Your task to perform on an android device: star an email in the gmail app Image 0: 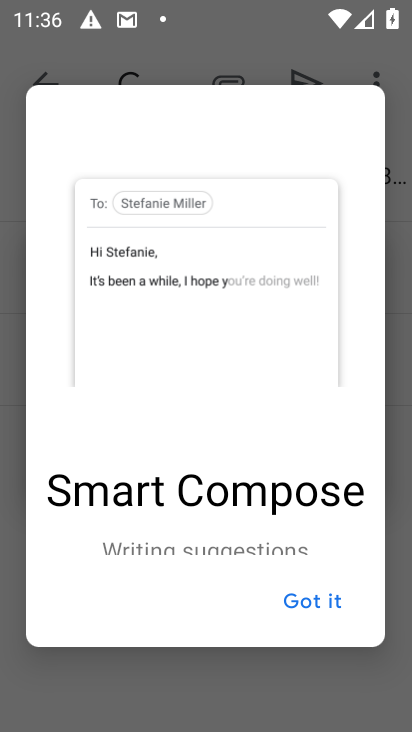
Step 0: press home button
Your task to perform on an android device: star an email in the gmail app Image 1: 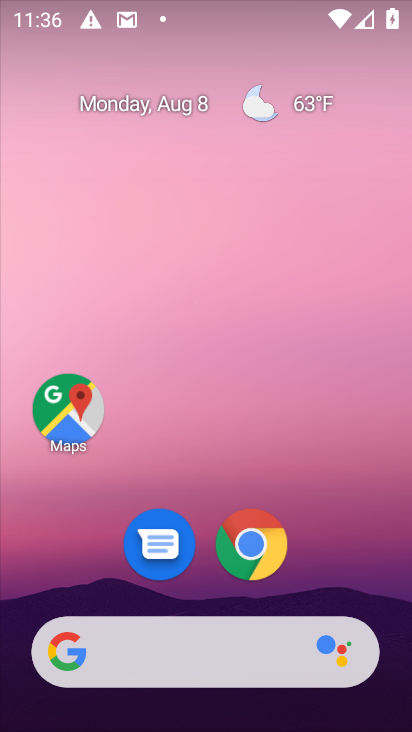
Step 1: drag from (181, 646) to (221, 130)
Your task to perform on an android device: star an email in the gmail app Image 2: 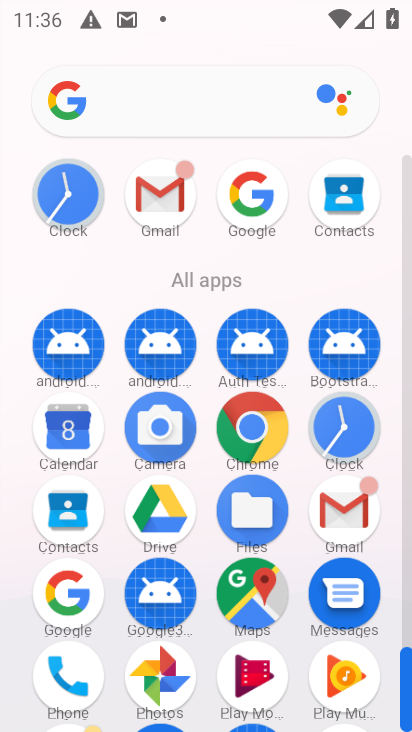
Step 2: click (157, 193)
Your task to perform on an android device: star an email in the gmail app Image 3: 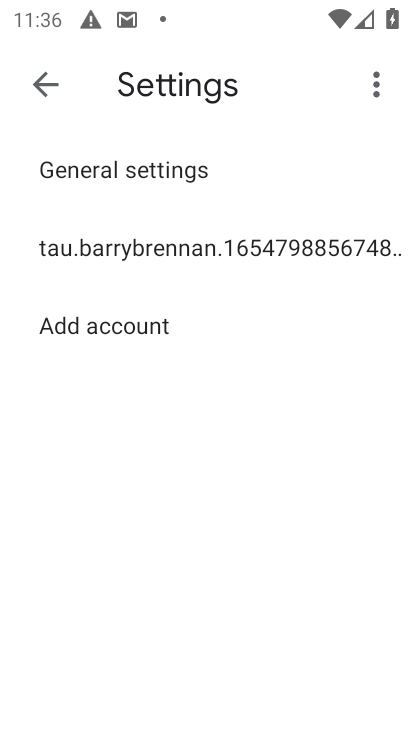
Step 3: press back button
Your task to perform on an android device: star an email in the gmail app Image 4: 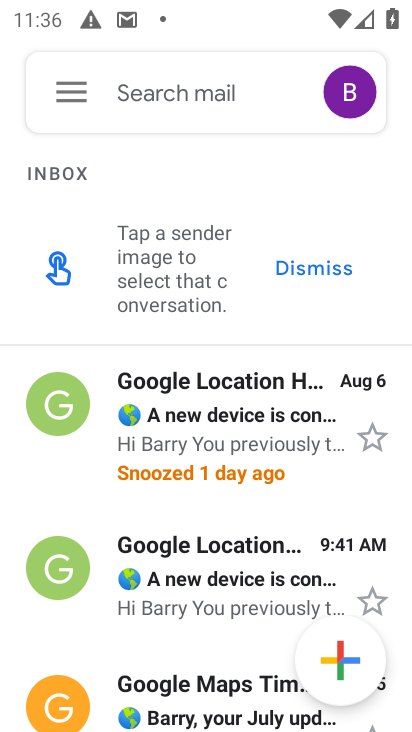
Step 4: click (373, 436)
Your task to perform on an android device: star an email in the gmail app Image 5: 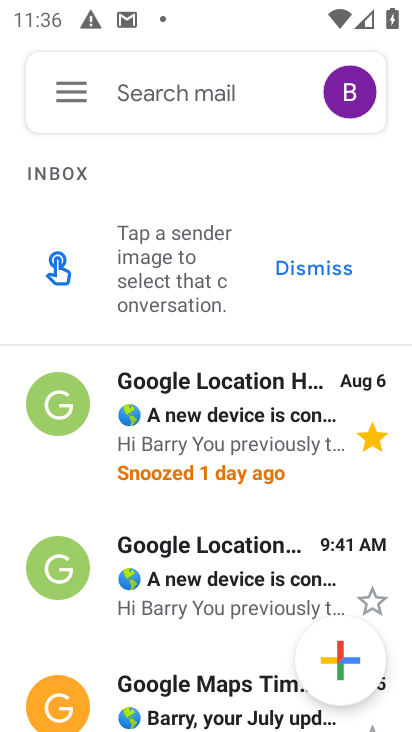
Step 5: task complete